Your task to perform on an android device: Go to accessibility settings Image 0: 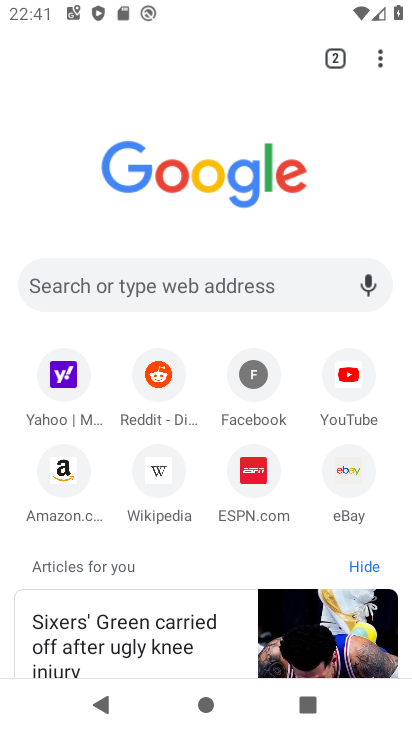
Step 0: press home button
Your task to perform on an android device: Go to accessibility settings Image 1: 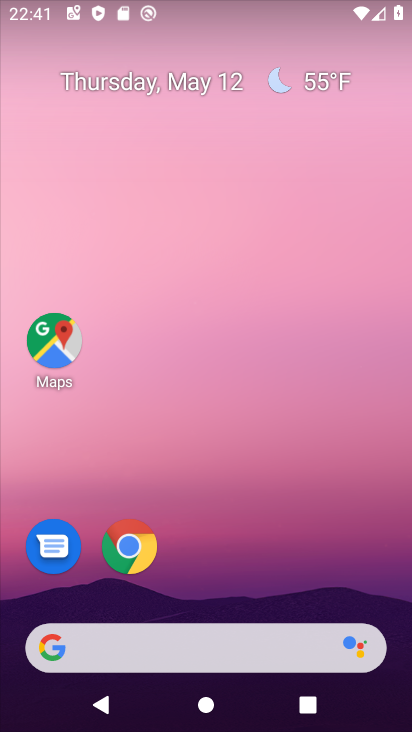
Step 1: drag from (195, 564) to (243, 32)
Your task to perform on an android device: Go to accessibility settings Image 2: 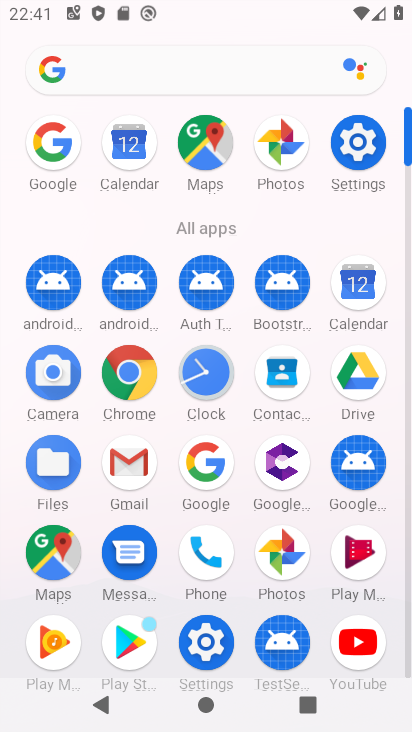
Step 2: click (352, 152)
Your task to perform on an android device: Go to accessibility settings Image 3: 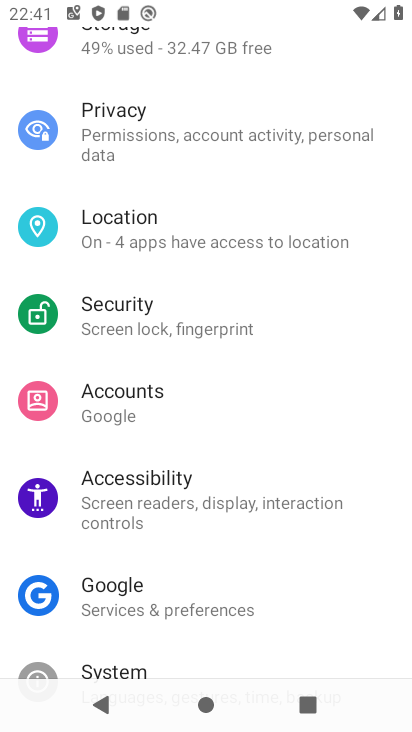
Step 3: click (165, 491)
Your task to perform on an android device: Go to accessibility settings Image 4: 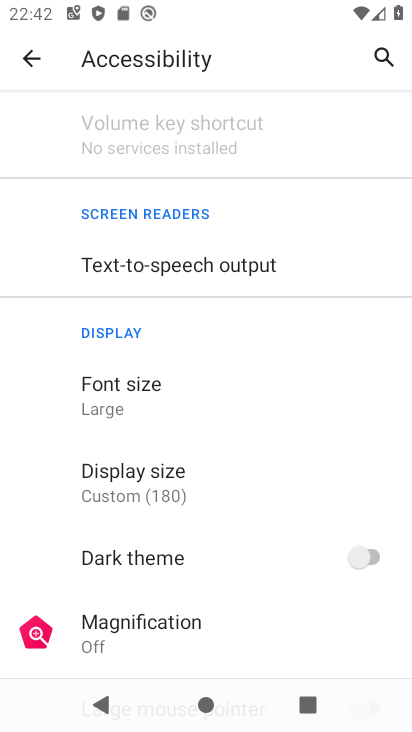
Step 4: task complete